Your task to perform on an android device: turn on javascript in the chrome app Image 0: 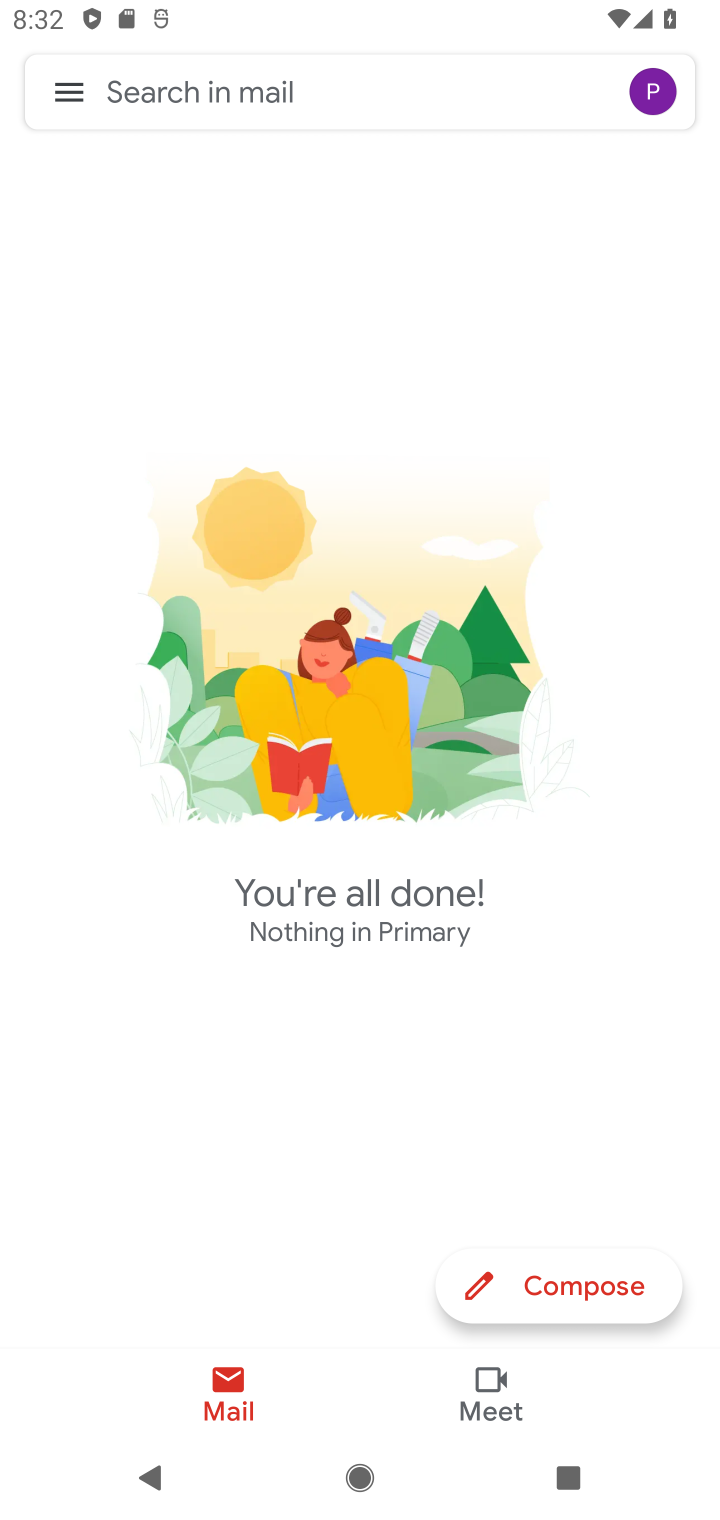
Step 0: press back button
Your task to perform on an android device: turn on javascript in the chrome app Image 1: 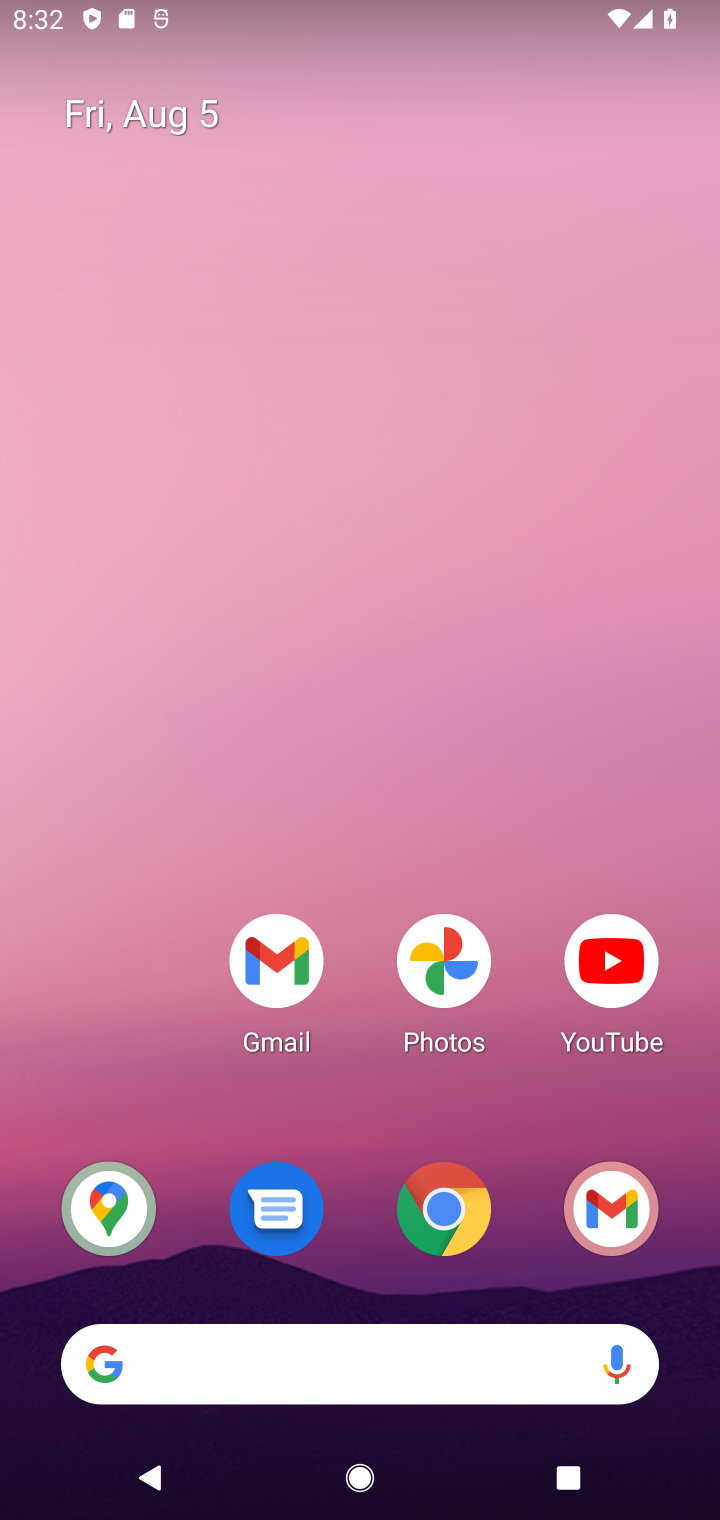
Step 1: click (464, 1196)
Your task to perform on an android device: turn on javascript in the chrome app Image 2: 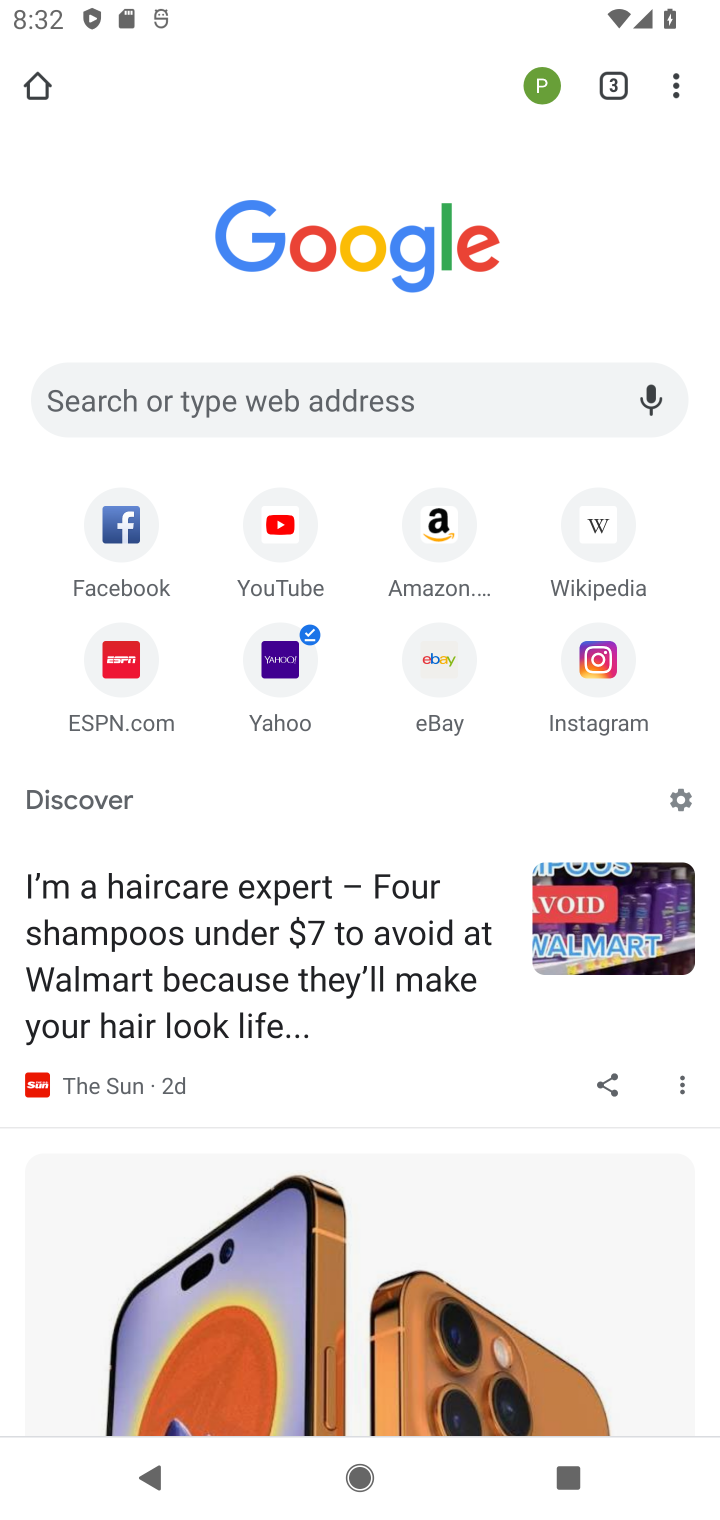
Step 2: click (689, 92)
Your task to perform on an android device: turn on javascript in the chrome app Image 3: 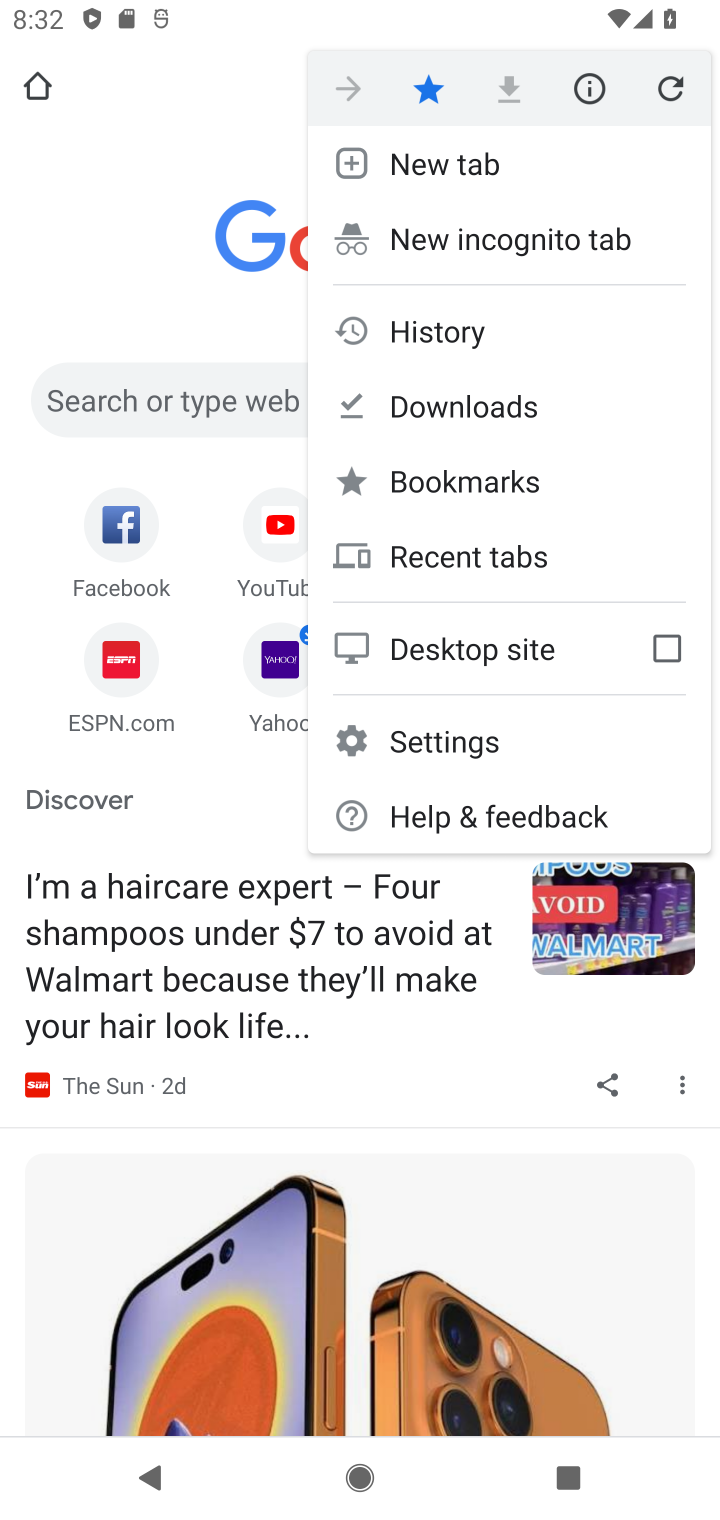
Step 3: click (576, 740)
Your task to perform on an android device: turn on javascript in the chrome app Image 4: 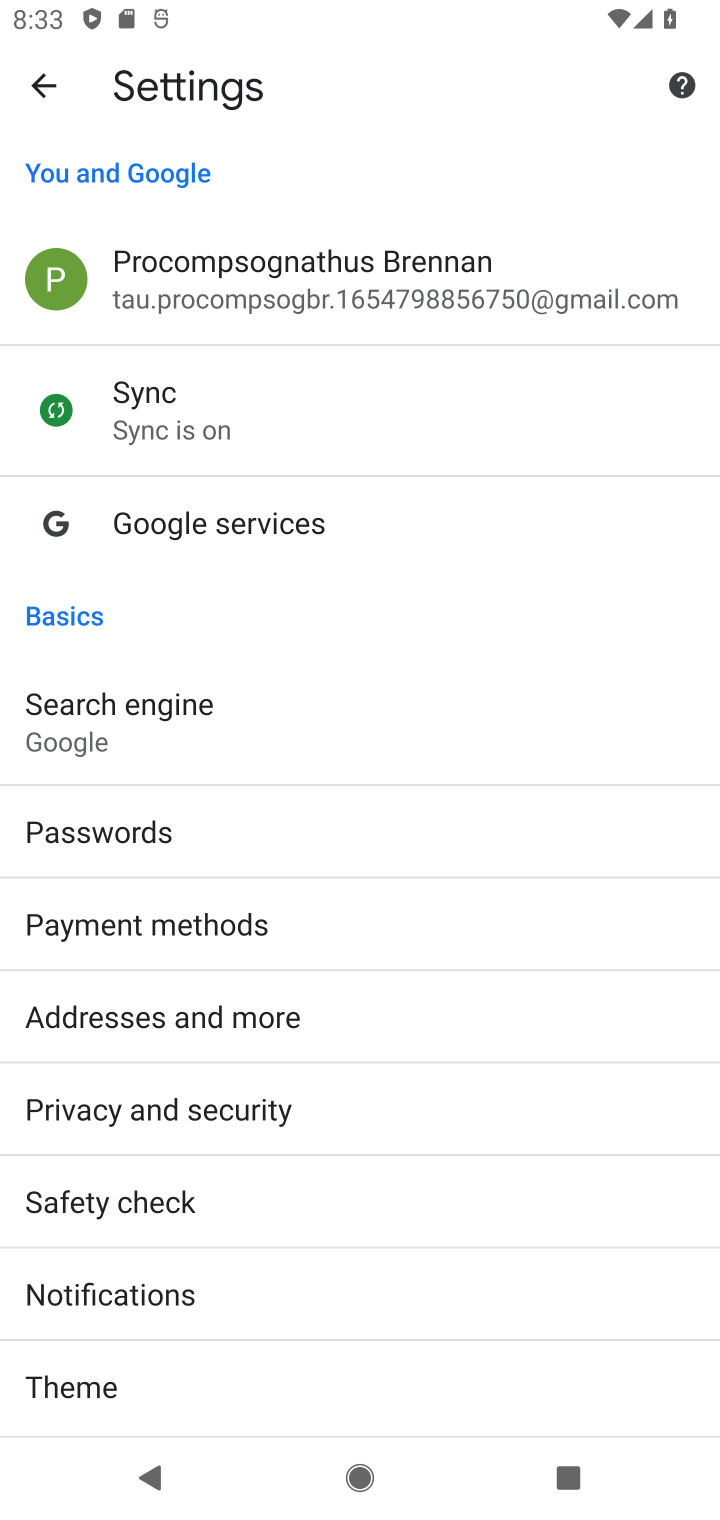
Step 4: drag from (495, 1358) to (392, 415)
Your task to perform on an android device: turn on javascript in the chrome app Image 5: 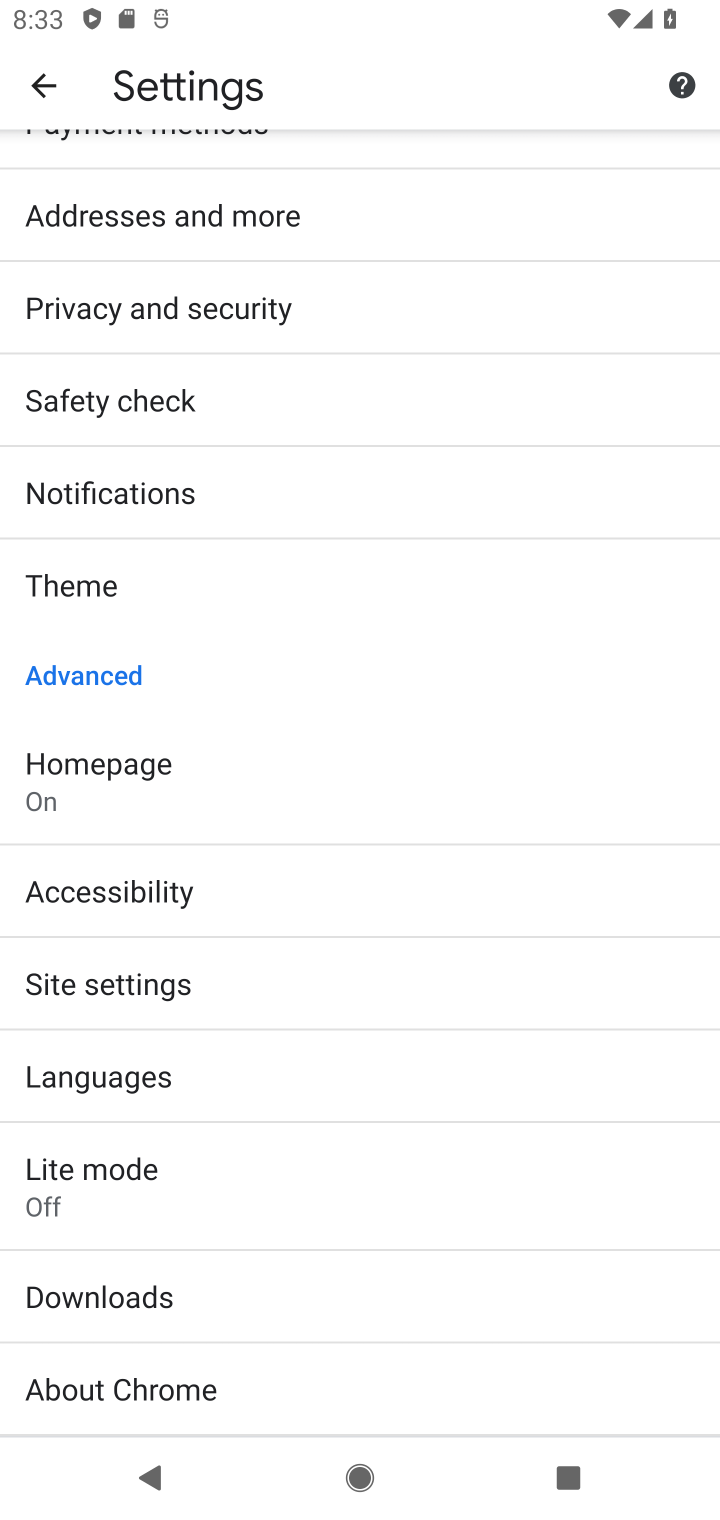
Step 5: click (345, 994)
Your task to perform on an android device: turn on javascript in the chrome app Image 6: 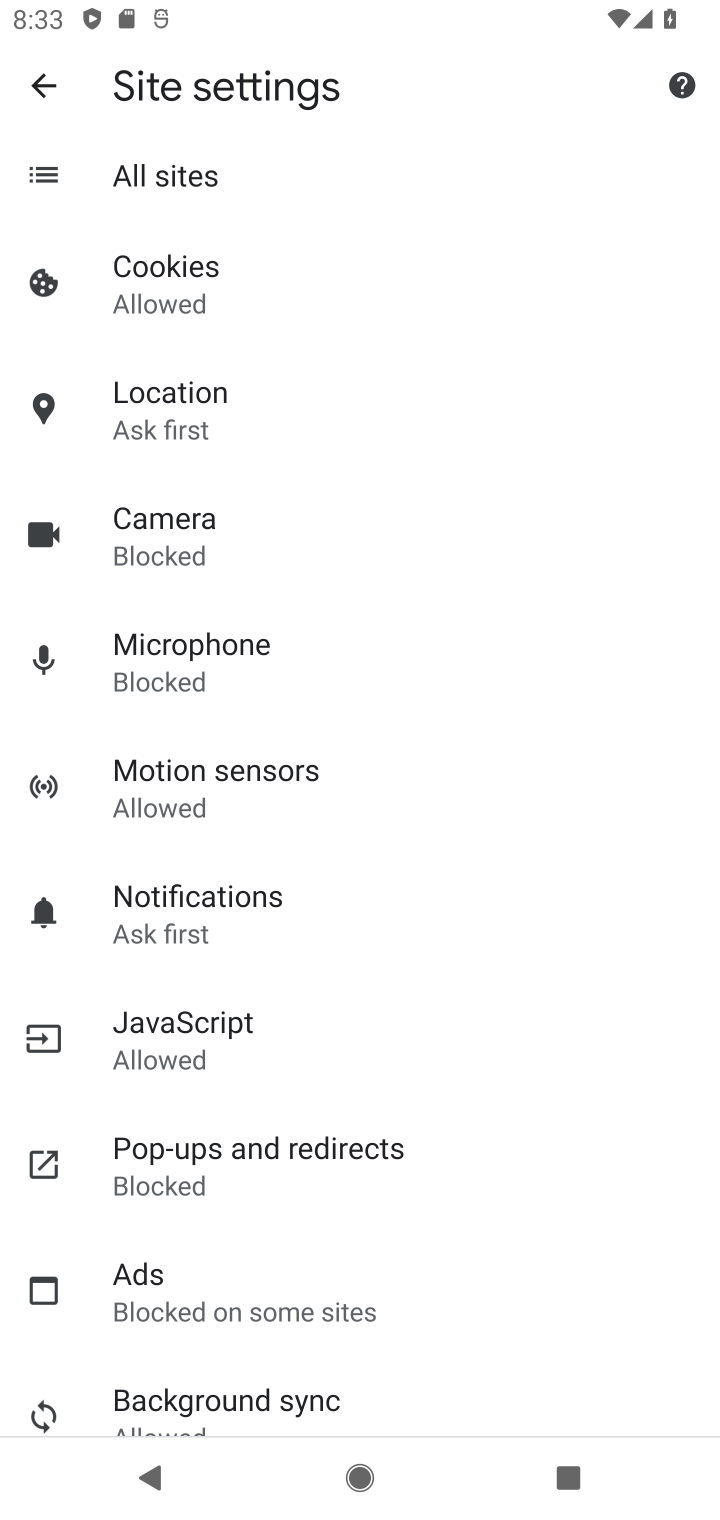
Step 6: click (426, 1047)
Your task to perform on an android device: turn on javascript in the chrome app Image 7: 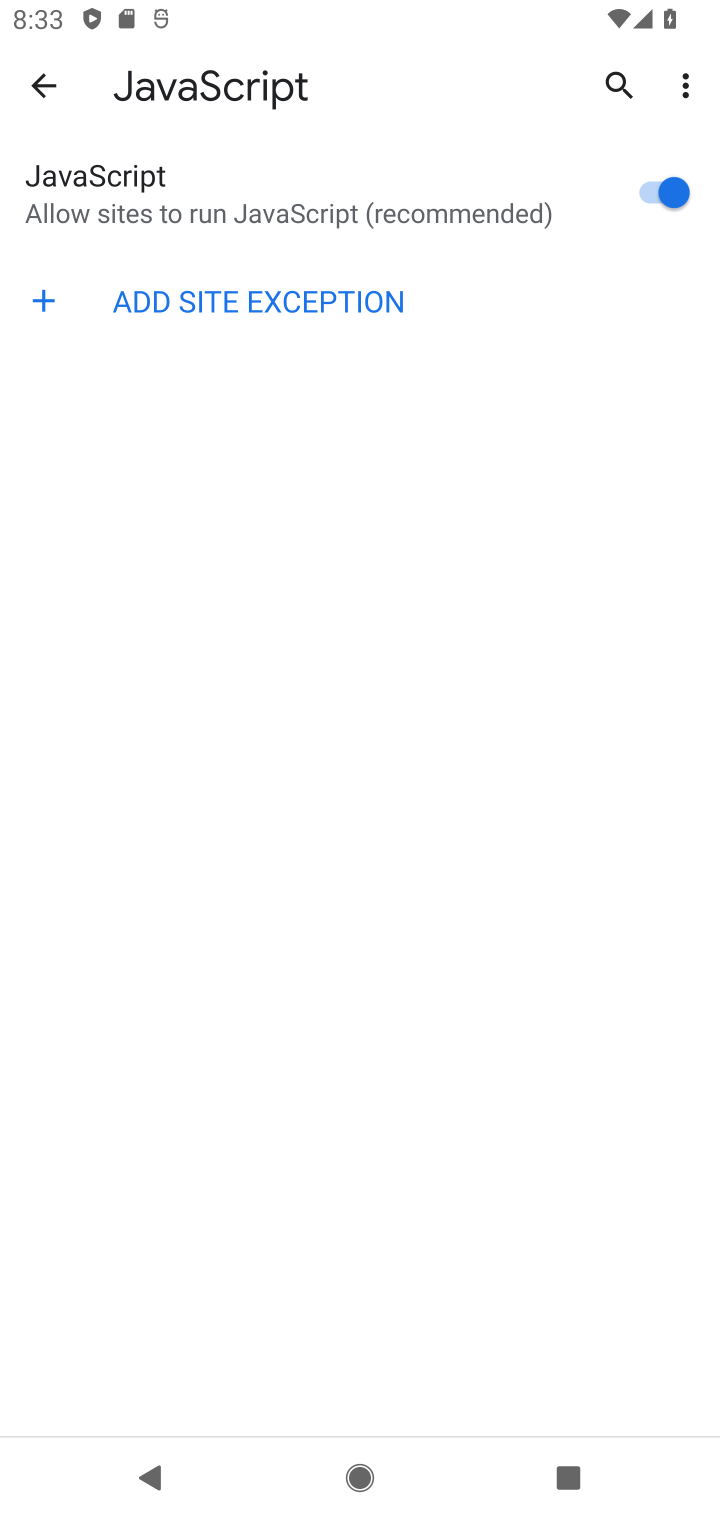
Step 7: task complete